Your task to perform on an android device: install app "Yahoo Mail" Image 0: 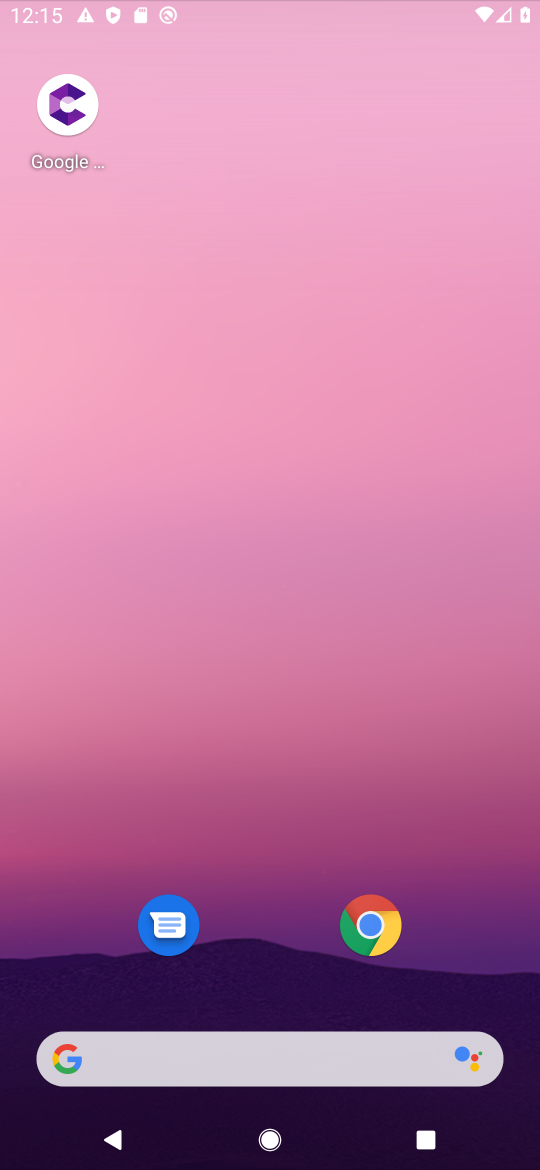
Step 0: press home button
Your task to perform on an android device: install app "Yahoo Mail" Image 1: 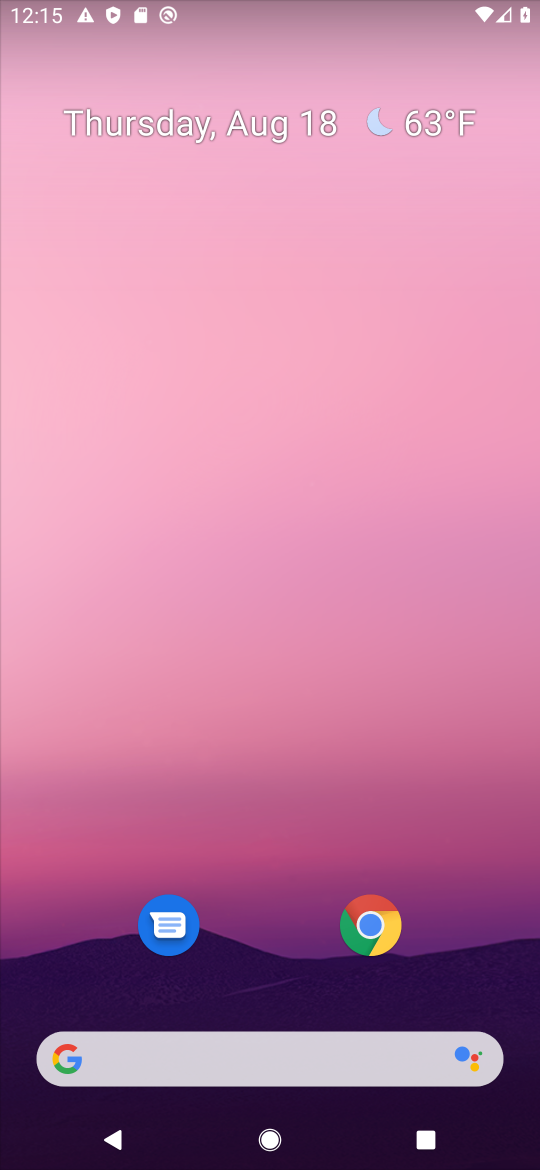
Step 1: drag from (226, 15) to (222, 176)
Your task to perform on an android device: install app "Yahoo Mail" Image 2: 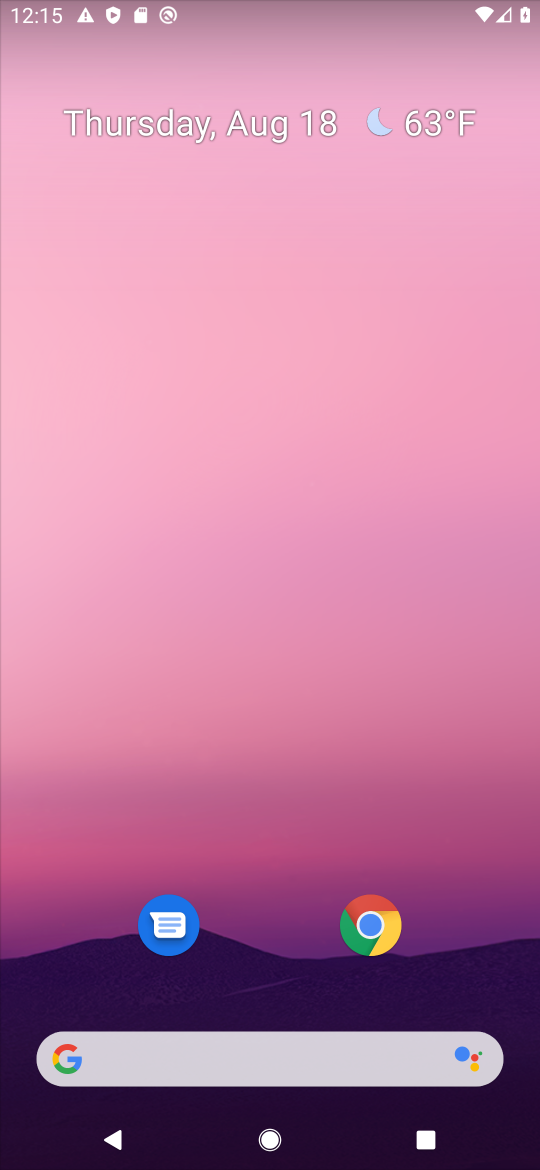
Step 2: drag from (233, 971) to (282, 369)
Your task to perform on an android device: install app "Yahoo Mail" Image 3: 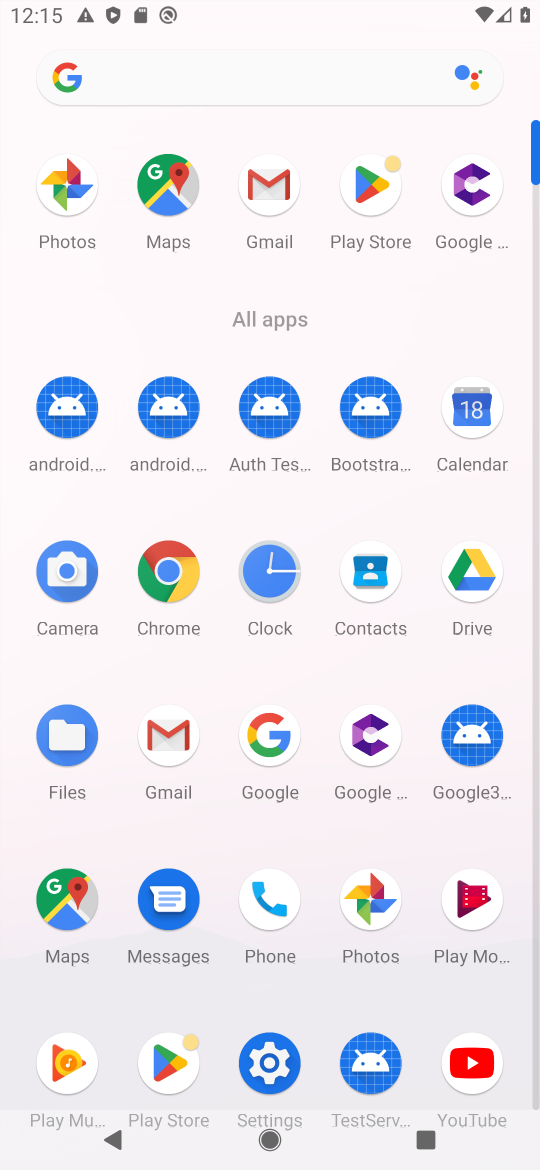
Step 3: click (171, 1070)
Your task to perform on an android device: install app "Yahoo Mail" Image 4: 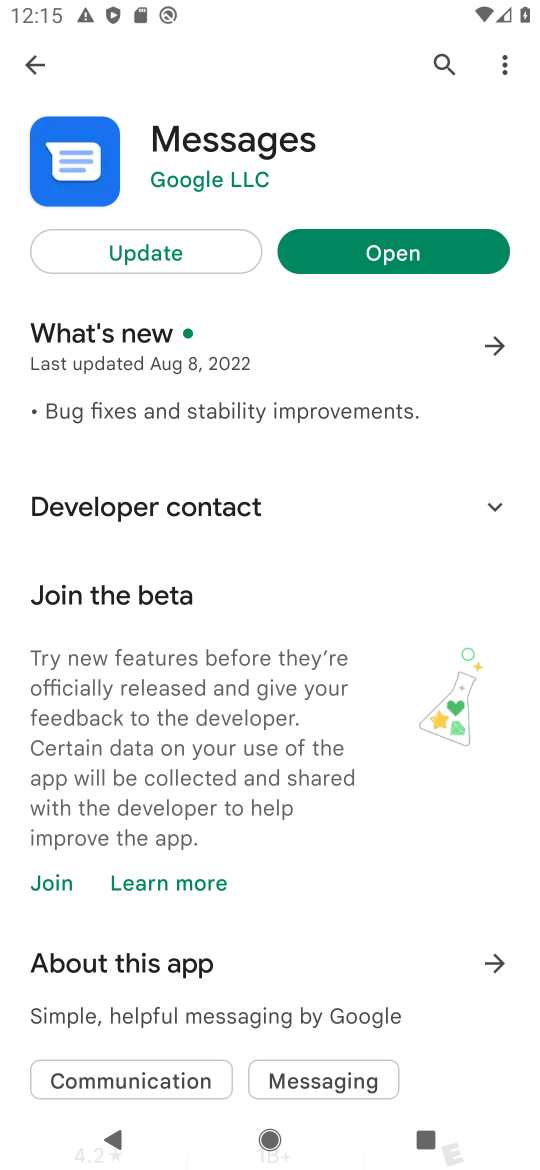
Step 4: click (34, 60)
Your task to perform on an android device: install app "Yahoo Mail" Image 5: 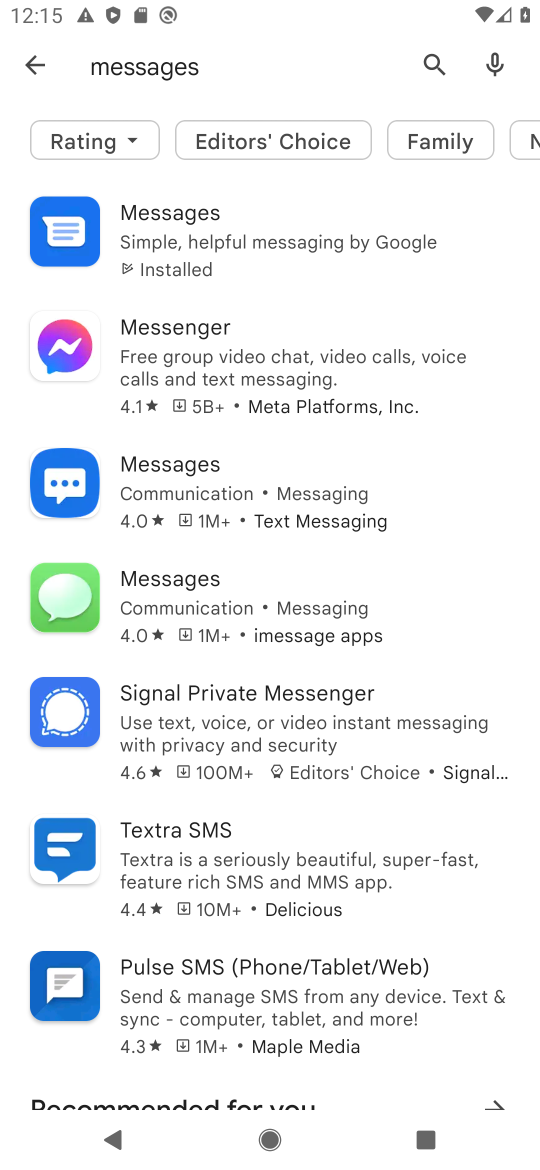
Step 5: click (38, 58)
Your task to perform on an android device: install app "Yahoo Mail" Image 6: 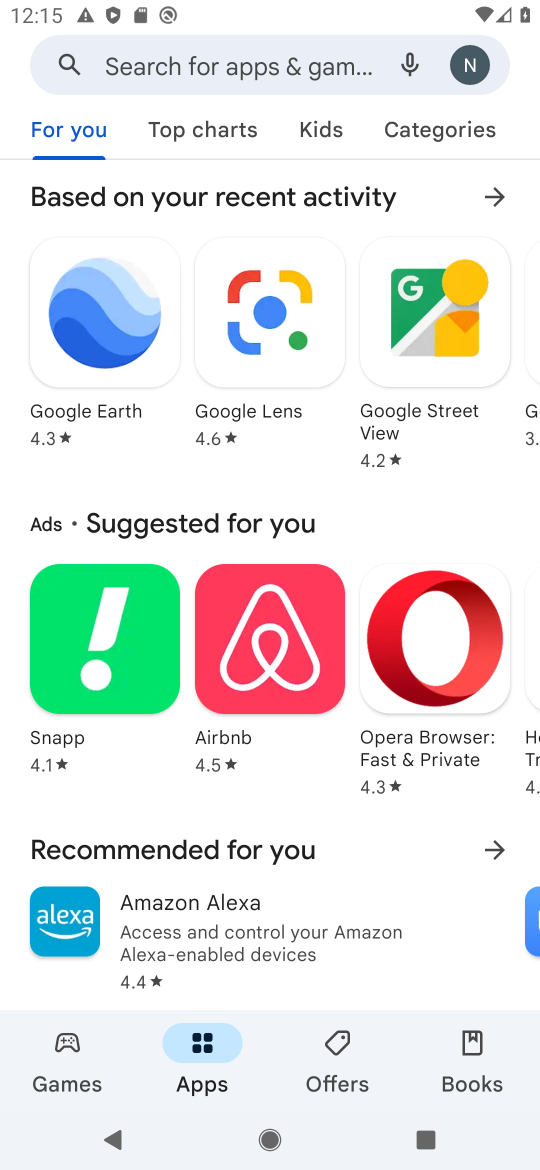
Step 6: click (173, 68)
Your task to perform on an android device: install app "Yahoo Mail" Image 7: 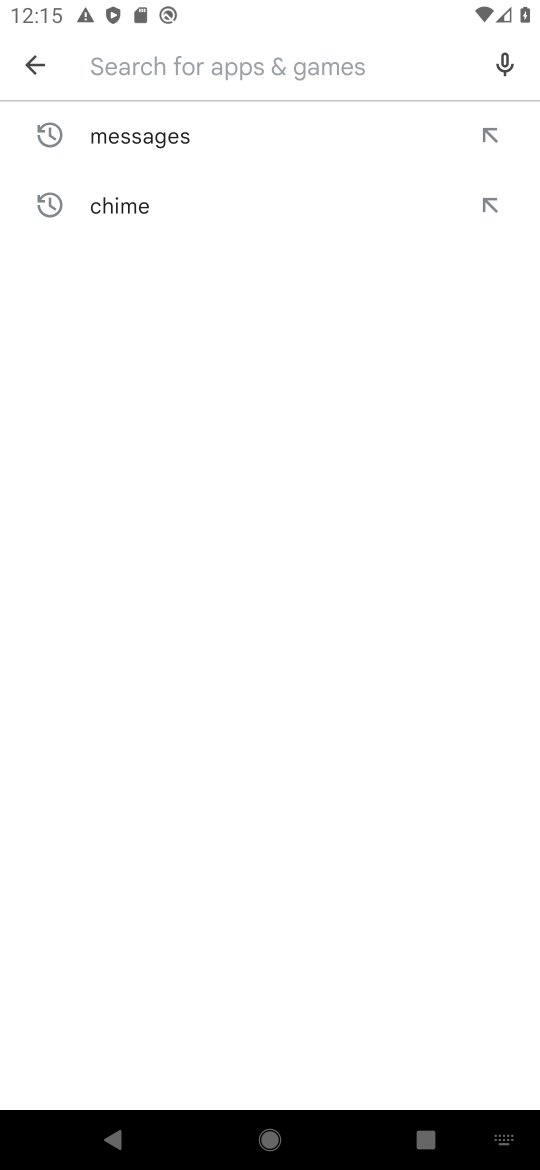
Step 7: type "Yahoo Mail"
Your task to perform on an android device: install app "Yahoo Mail" Image 8: 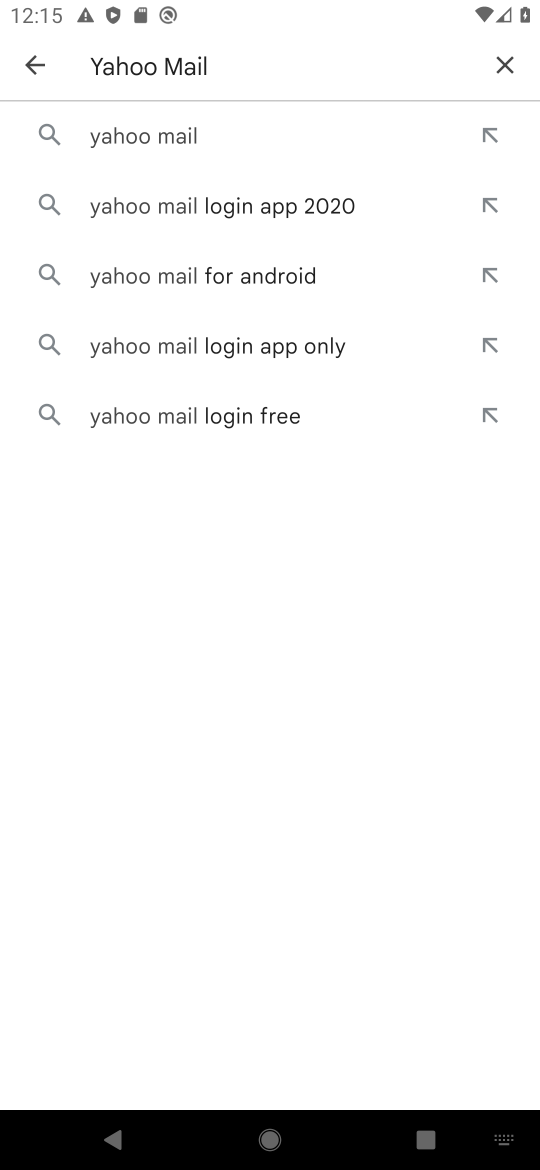
Step 8: click (179, 149)
Your task to perform on an android device: install app "Yahoo Mail" Image 9: 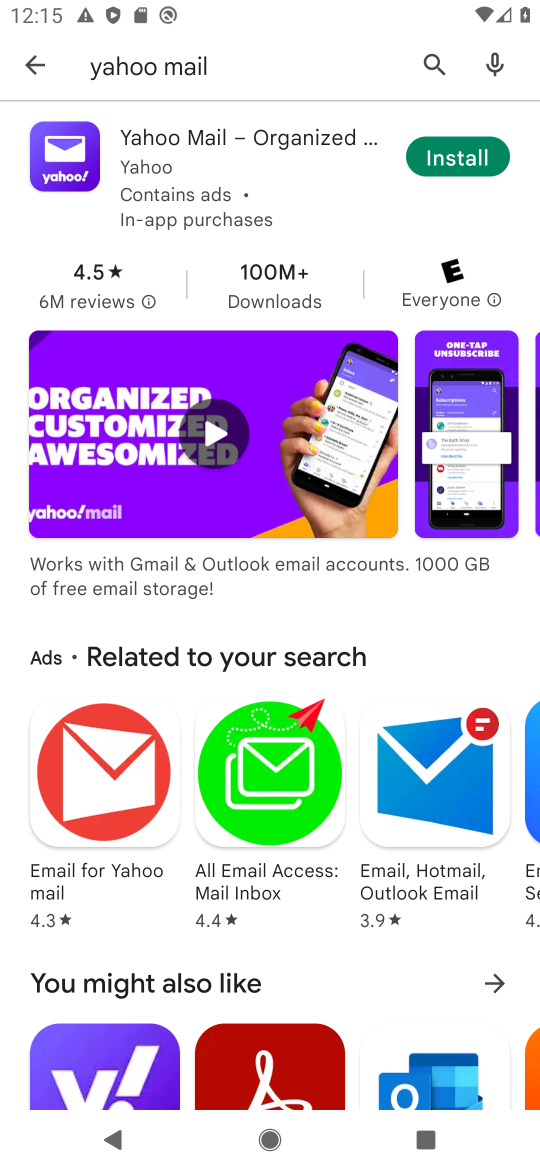
Step 9: click (477, 142)
Your task to perform on an android device: install app "Yahoo Mail" Image 10: 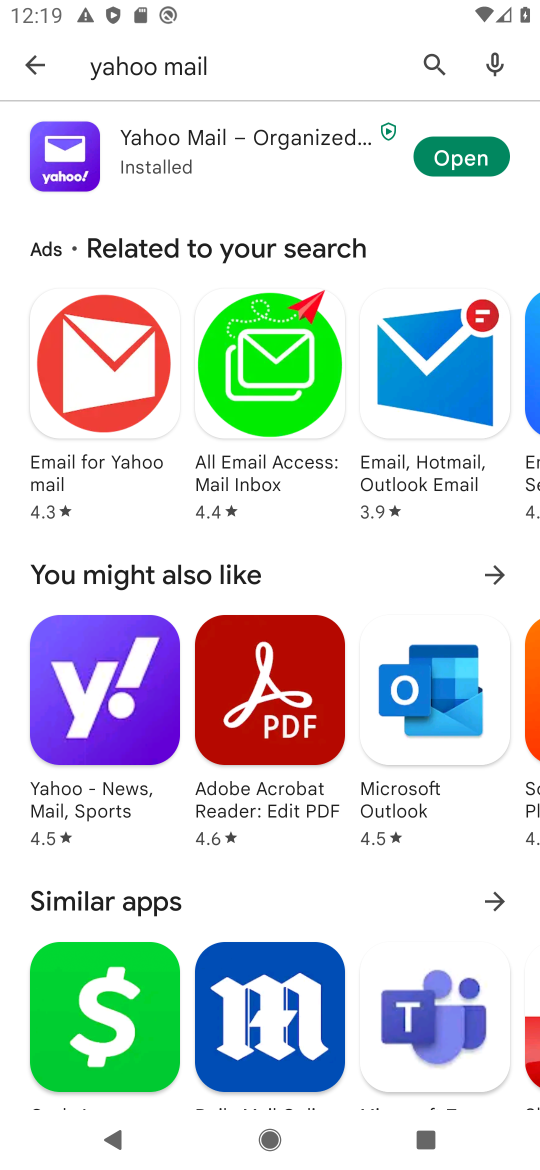
Step 10: click (462, 155)
Your task to perform on an android device: install app "Yahoo Mail" Image 11: 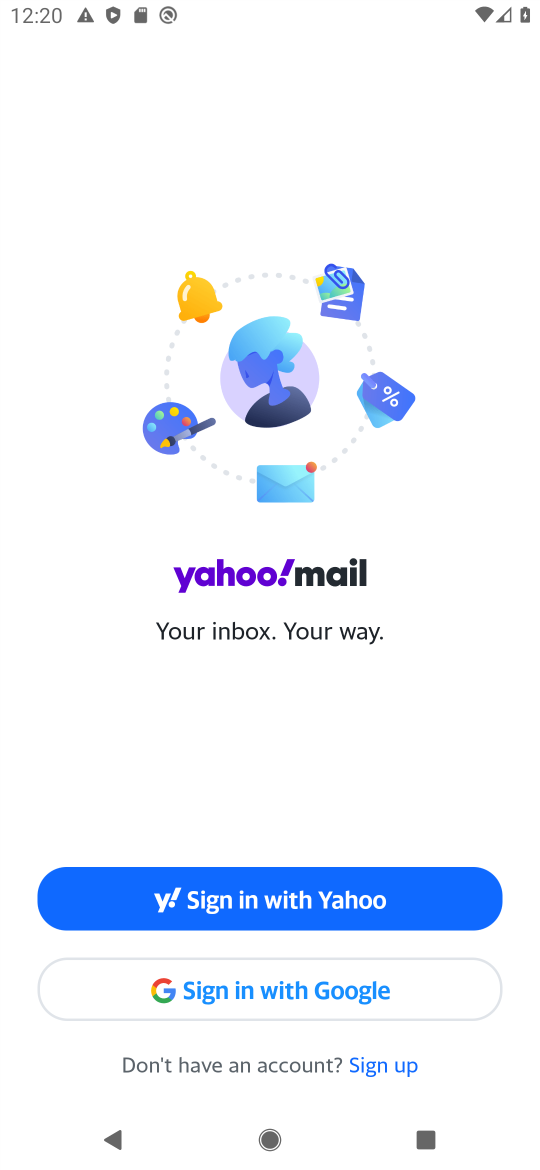
Step 11: task complete